Your task to perform on an android device: open app "Grab" (install if not already installed) Image 0: 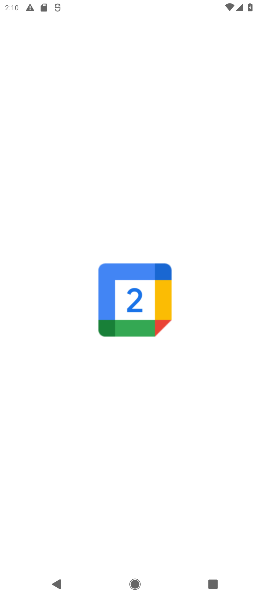
Step 0: press home button
Your task to perform on an android device: open app "Grab" (install if not already installed) Image 1: 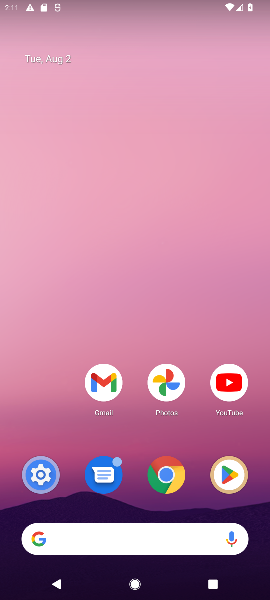
Step 1: click (223, 475)
Your task to perform on an android device: open app "Grab" (install if not already installed) Image 2: 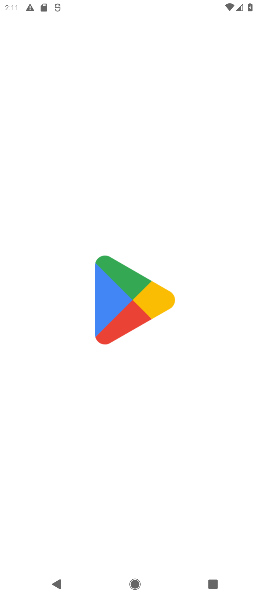
Step 2: click (127, 593)
Your task to perform on an android device: open app "Grab" (install if not already installed) Image 3: 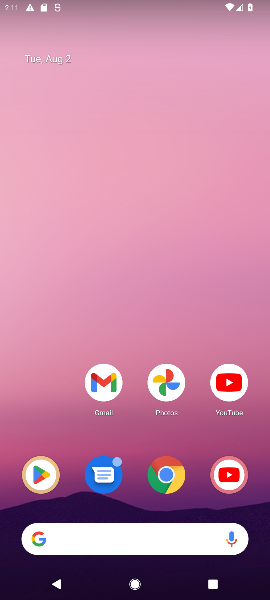
Step 3: click (25, 481)
Your task to perform on an android device: open app "Grab" (install if not already installed) Image 4: 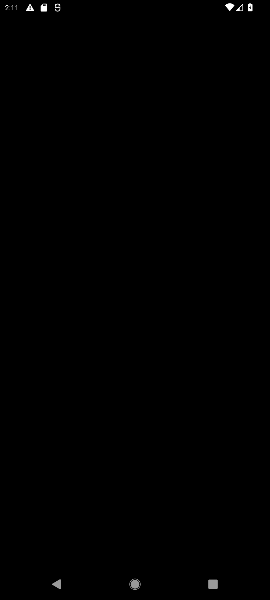
Step 4: task complete